Your task to perform on an android device: Go to Yahoo.com Image 0: 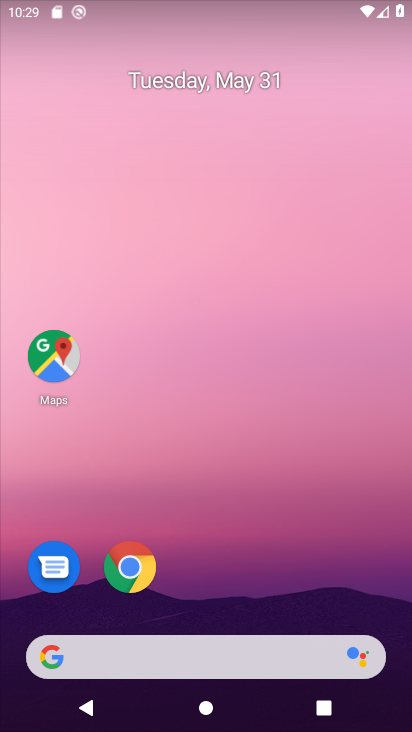
Step 0: click (121, 566)
Your task to perform on an android device: Go to Yahoo.com Image 1: 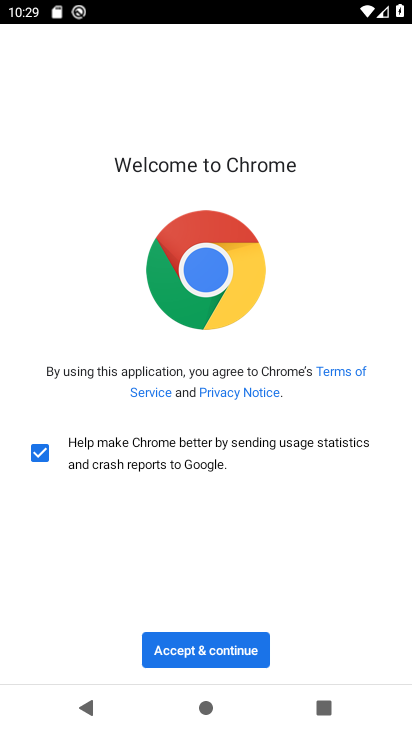
Step 1: click (175, 642)
Your task to perform on an android device: Go to Yahoo.com Image 2: 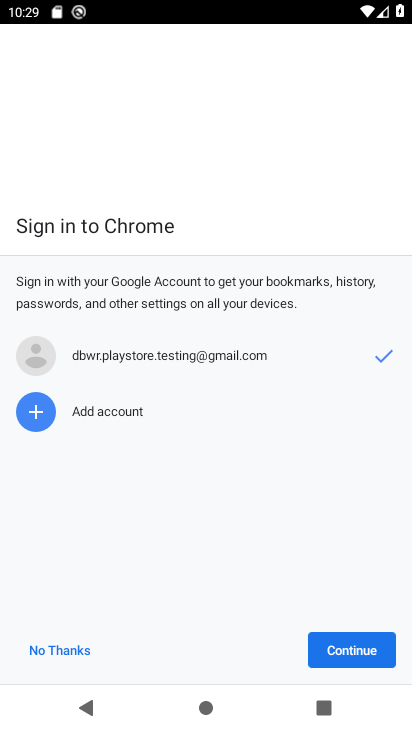
Step 2: click (349, 652)
Your task to perform on an android device: Go to Yahoo.com Image 3: 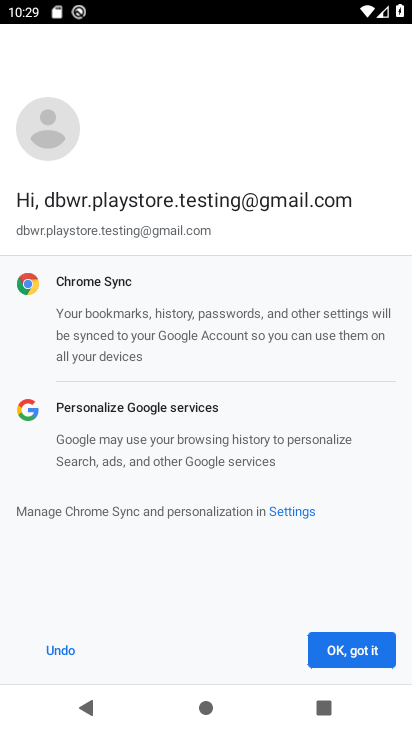
Step 3: click (349, 652)
Your task to perform on an android device: Go to Yahoo.com Image 4: 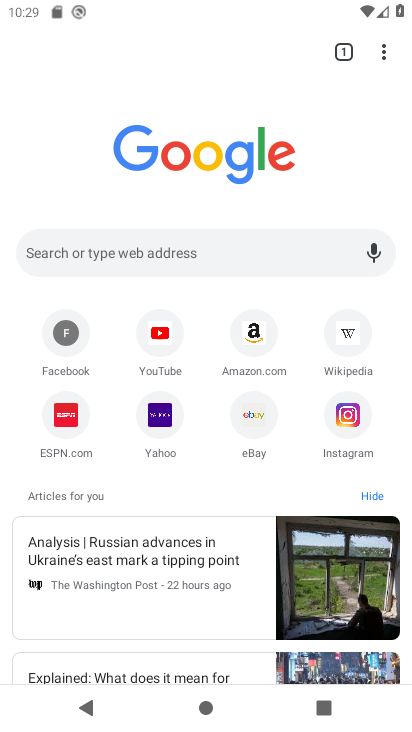
Step 4: click (165, 424)
Your task to perform on an android device: Go to Yahoo.com Image 5: 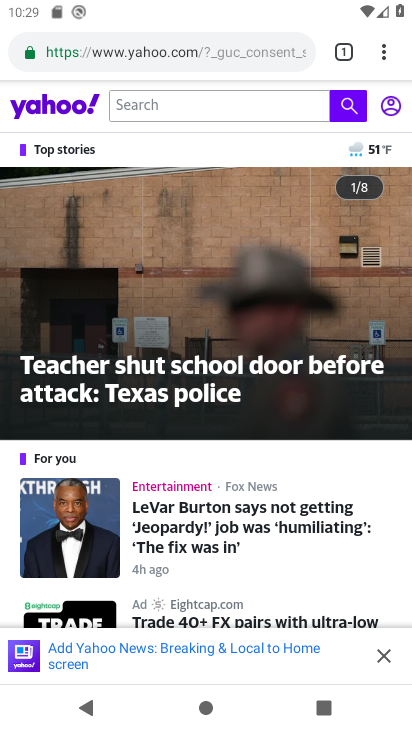
Step 5: task complete